Your task to perform on an android device: allow notifications from all sites in the chrome app Image 0: 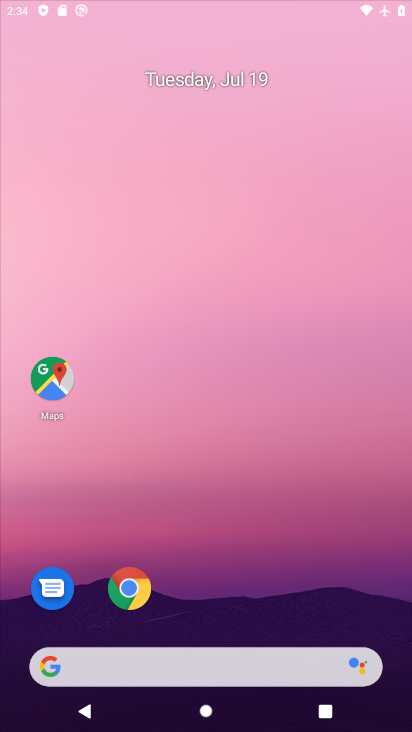
Step 0: press home button
Your task to perform on an android device: allow notifications from all sites in the chrome app Image 1: 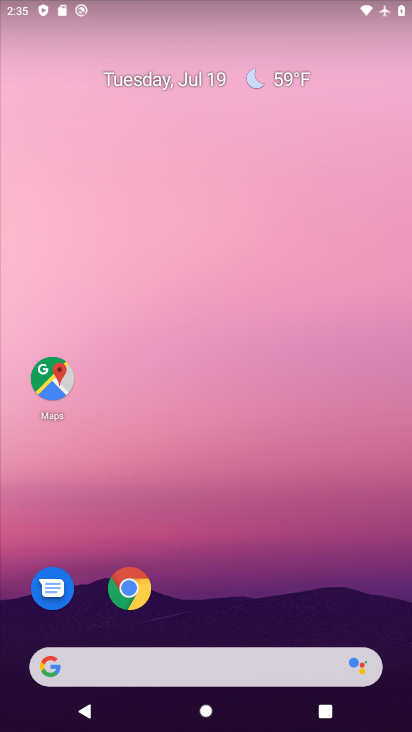
Step 1: drag from (224, 616) to (297, 92)
Your task to perform on an android device: allow notifications from all sites in the chrome app Image 2: 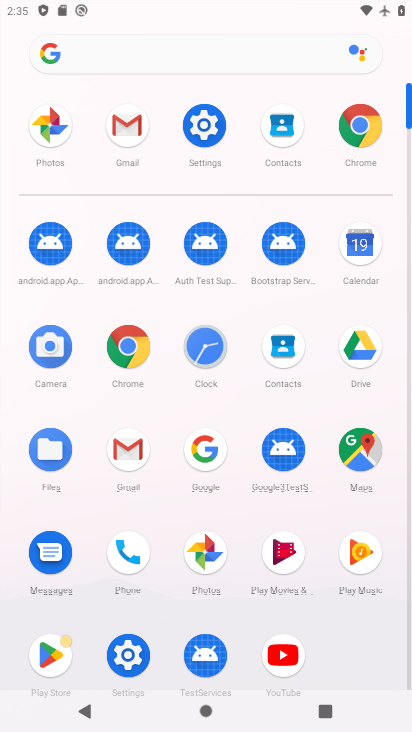
Step 2: click (355, 132)
Your task to perform on an android device: allow notifications from all sites in the chrome app Image 3: 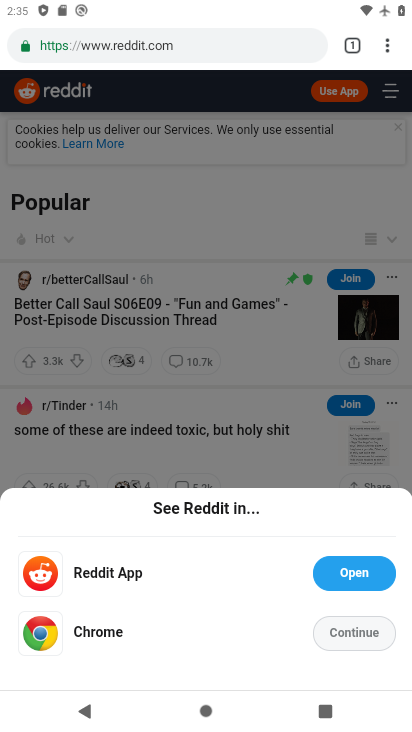
Step 3: drag from (382, 31) to (296, 520)
Your task to perform on an android device: allow notifications from all sites in the chrome app Image 4: 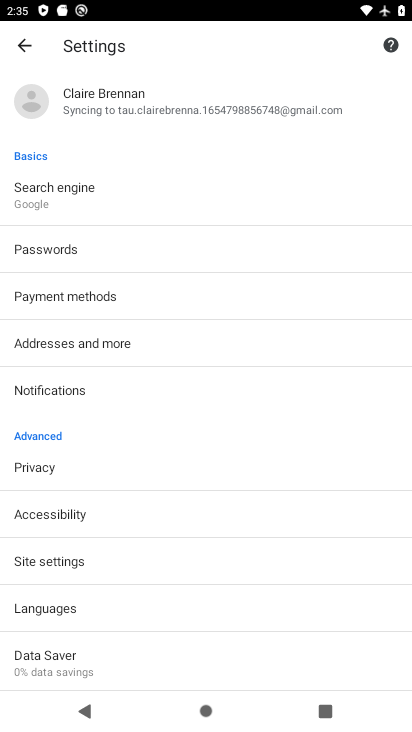
Step 4: click (71, 563)
Your task to perform on an android device: allow notifications from all sites in the chrome app Image 5: 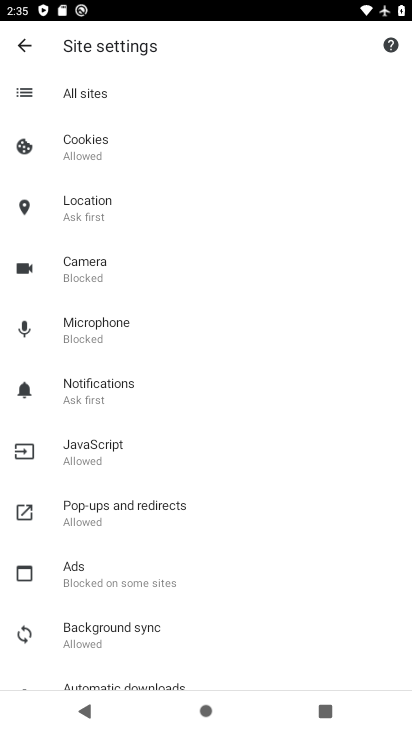
Step 5: click (92, 397)
Your task to perform on an android device: allow notifications from all sites in the chrome app Image 6: 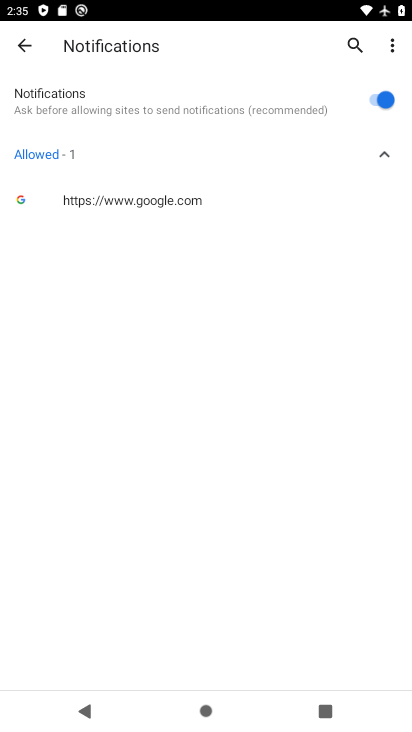
Step 6: task complete